Your task to perform on an android device: snooze an email in the gmail app Image 0: 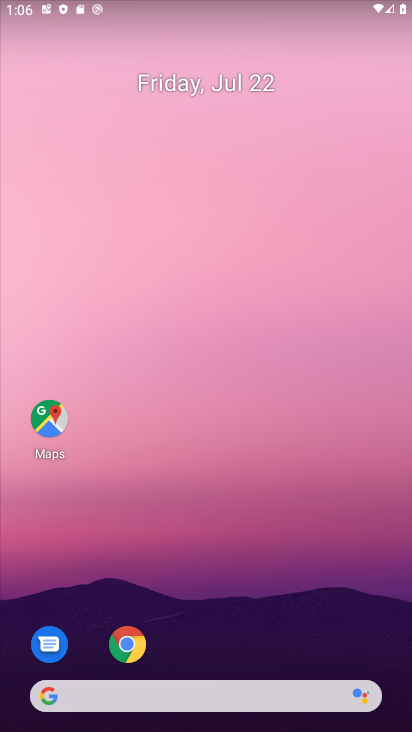
Step 0: drag from (224, 652) to (280, 44)
Your task to perform on an android device: snooze an email in the gmail app Image 1: 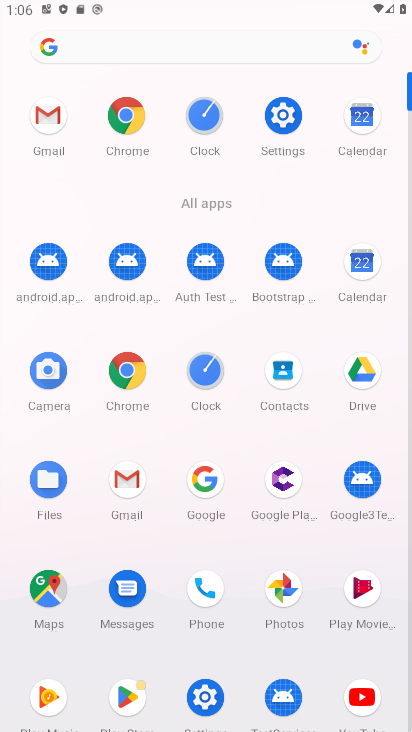
Step 1: click (45, 112)
Your task to perform on an android device: snooze an email in the gmail app Image 2: 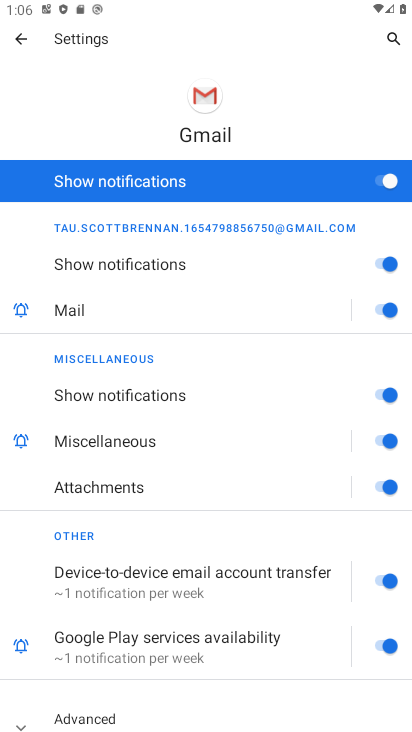
Step 2: click (9, 44)
Your task to perform on an android device: snooze an email in the gmail app Image 3: 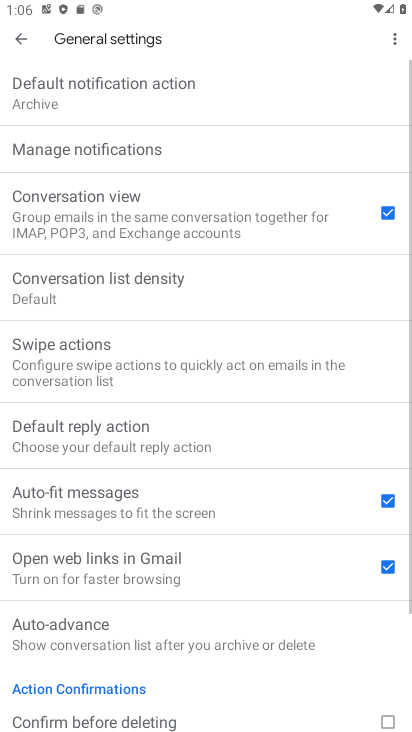
Step 3: click (13, 39)
Your task to perform on an android device: snooze an email in the gmail app Image 4: 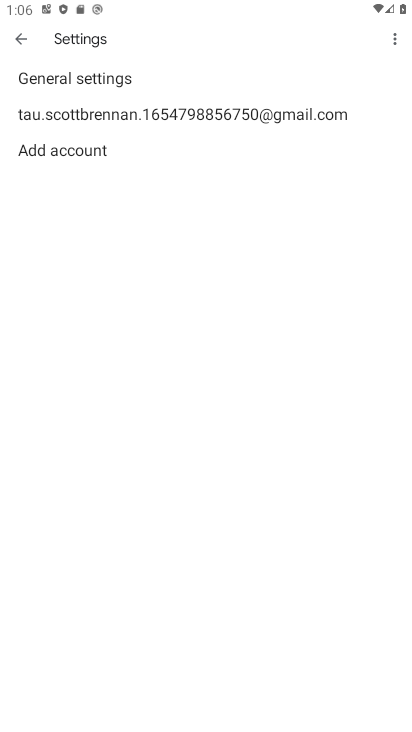
Step 4: click (26, 36)
Your task to perform on an android device: snooze an email in the gmail app Image 5: 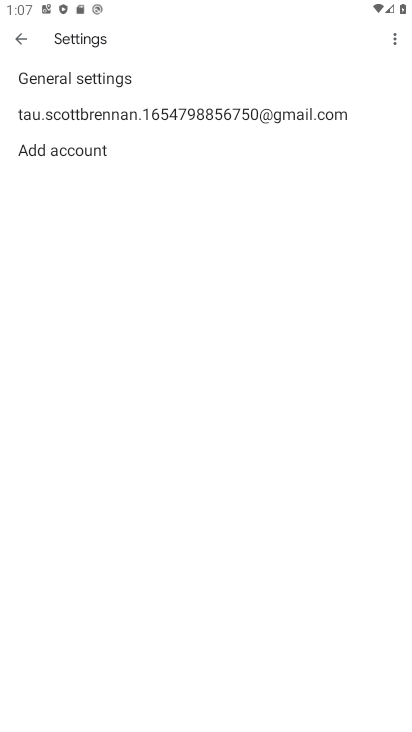
Step 5: click (24, 39)
Your task to perform on an android device: snooze an email in the gmail app Image 6: 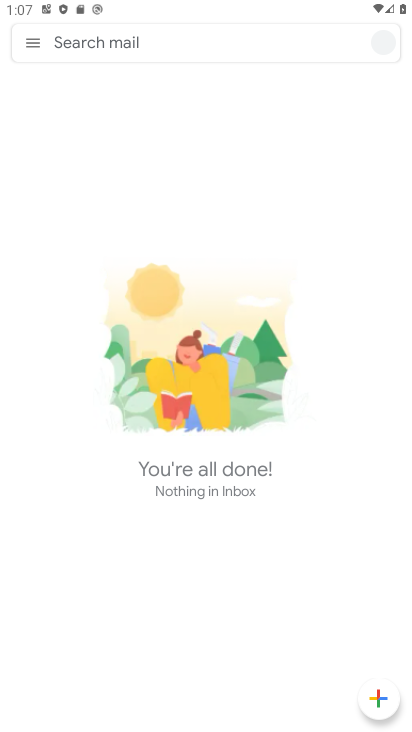
Step 6: click (24, 39)
Your task to perform on an android device: snooze an email in the gmail app Image 7: 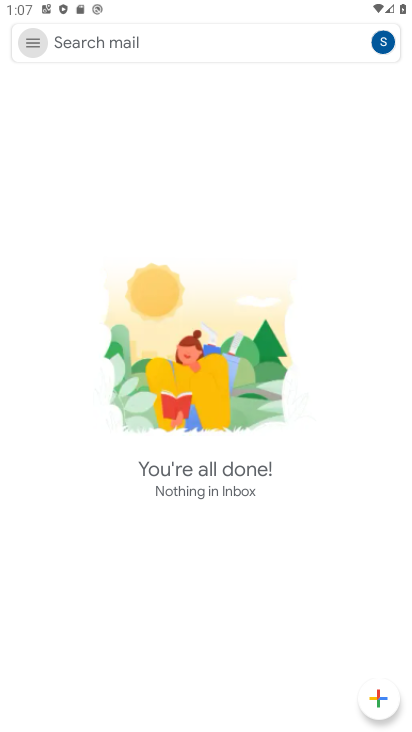
Step 7: click (24, 39)
Your task to perform on an android device: snooze an email in the gmail app Image 8: 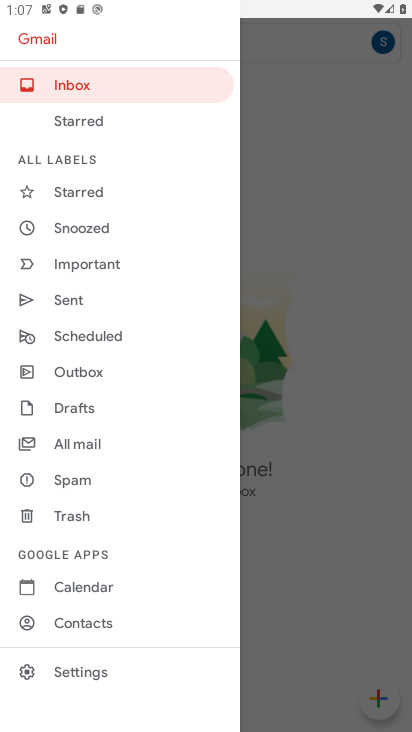
Step 8: click (74, 441)
Your task to perform on an android device: snooze an email in the gmail app Image 9: 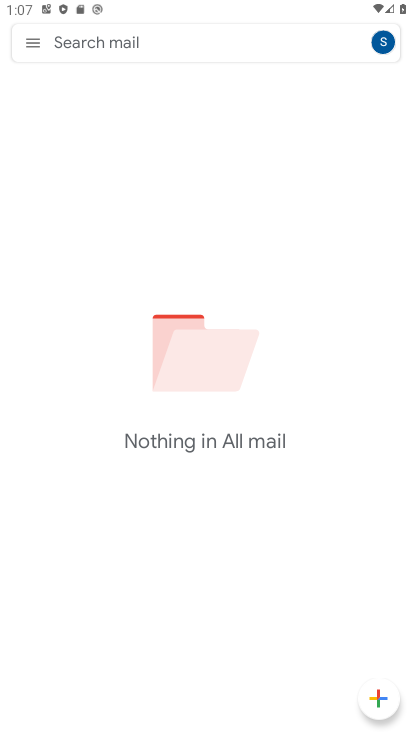
Step 9: task complete